Your task to perform on an android device: Open Android settings Image 0: 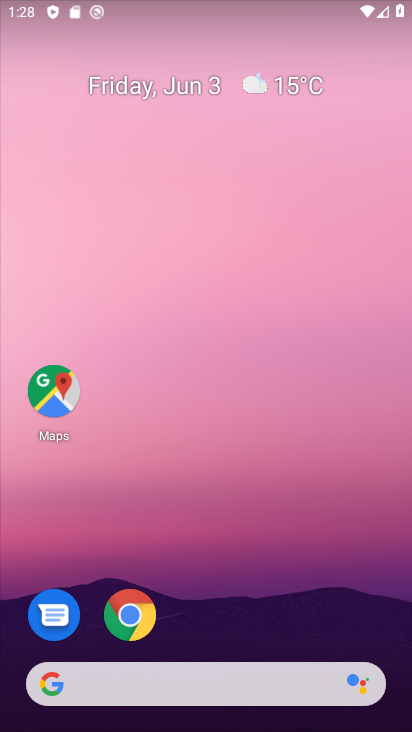
Step 0: drag from (201, 640) to (233, 43)
Your task to perform on an android device: Open Android settings Image 1: 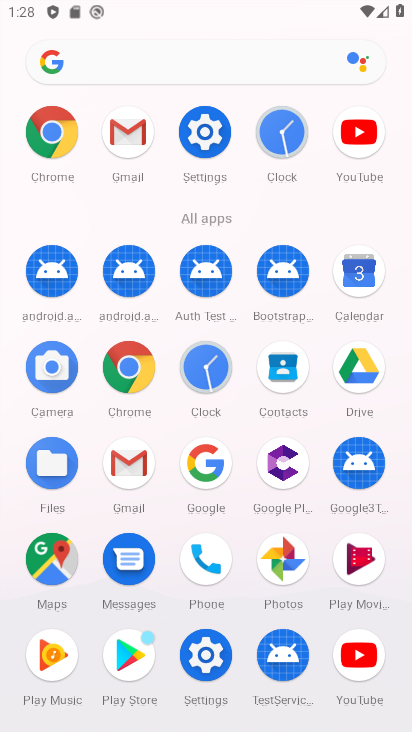
Step 1: click (208, 125)
Your task to perform on an android device: Open Android settings Image 2: 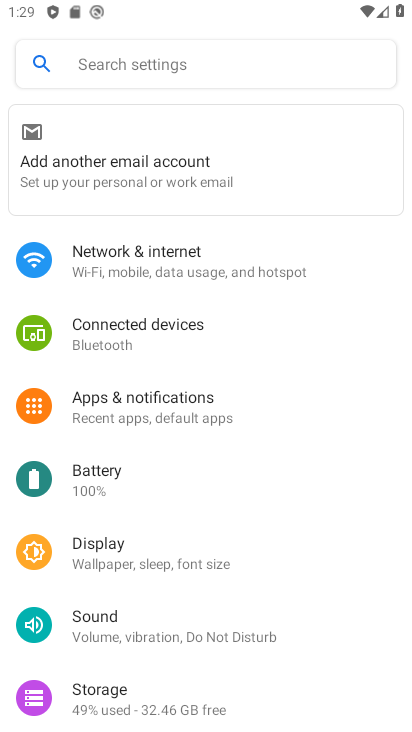
Step 2: drag from (139, 653) to (199, 292)
Your task to perform on an android device: Open Android settings Image 3: 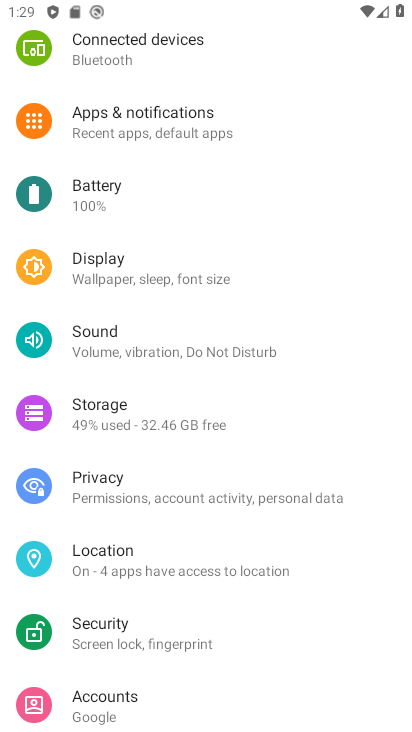
Step 3: drag from (224, 642) to (302, 90)
Your task to perform on an android device: Open Android settings Image 4: 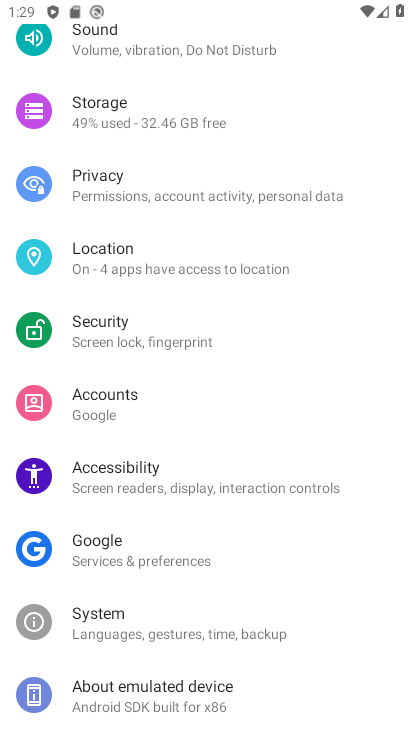
Step 4: click (152, 698)
Your task to perform on an android device: Open Android settings Image 5: 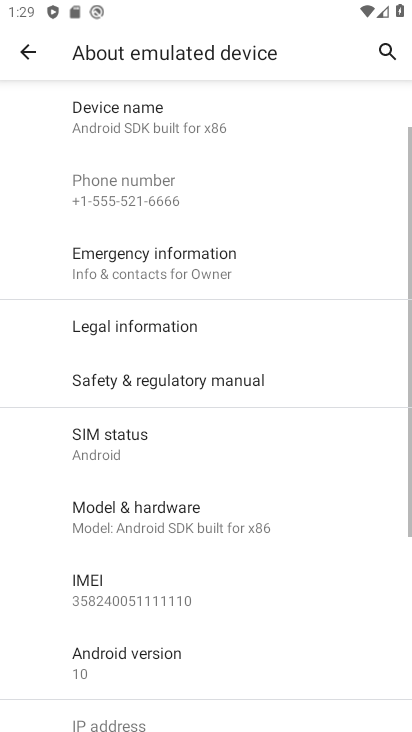
Step 5: click (190, 668)
Your task to perform on an android device: Open Android settings Image 6: 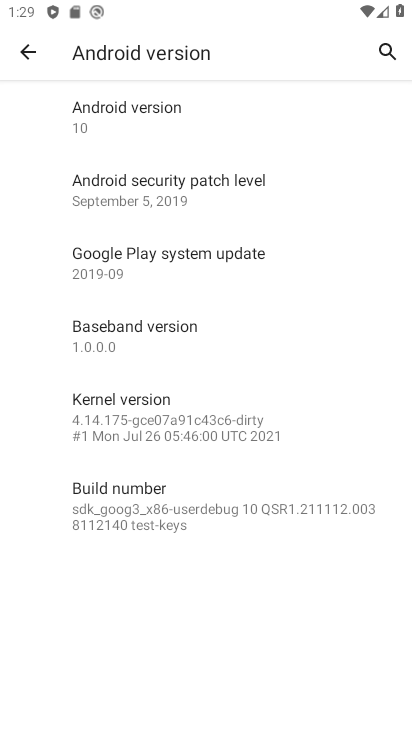
Step 6: task complete